Your task to perform on an android device: change the clock display to digital Image 0: 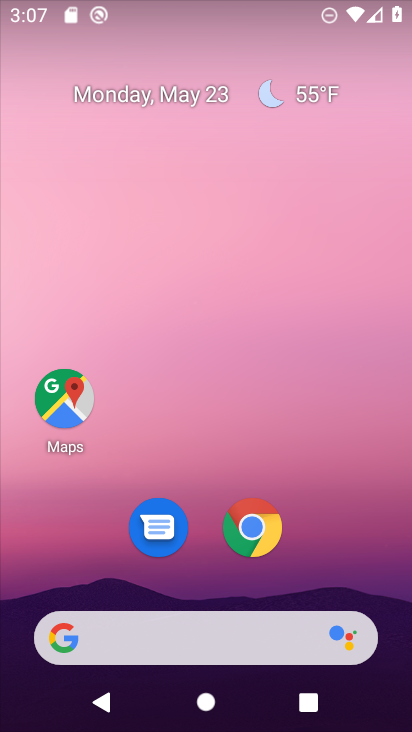
Step 0: drag from (213, 584) to (238, 106)
Your task to perform on an android device: change the clock display to digital Image 1: 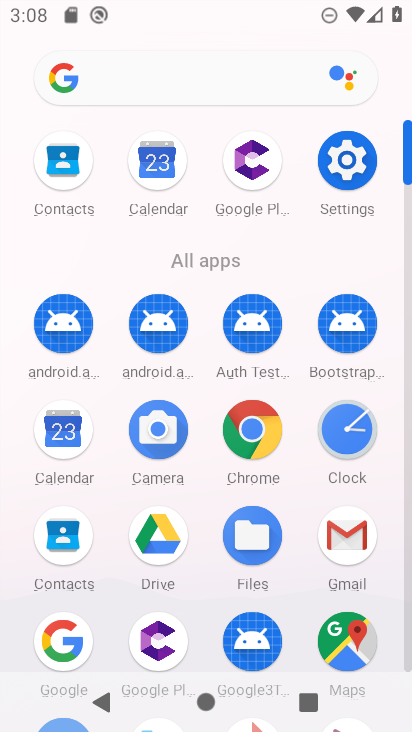
Step 1: drag from (199, 596) to (244, 169)
Your task to perform on an android device: change the clock display to digital Image 2: 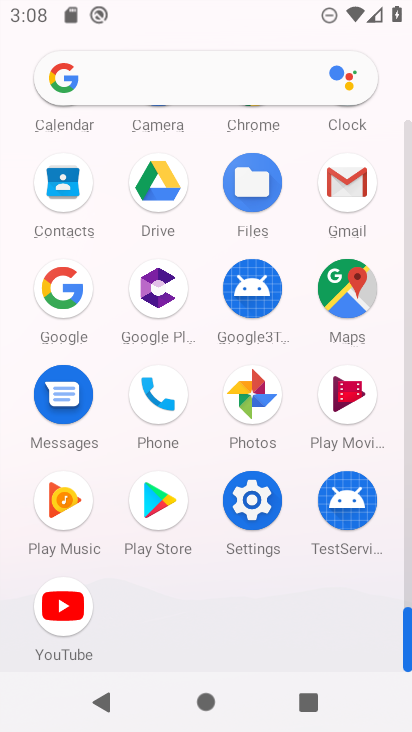
Step 2: drag from (205, 216) to (228, 564)
Your task to perform on an android device: change the clock display to digital Image 3: 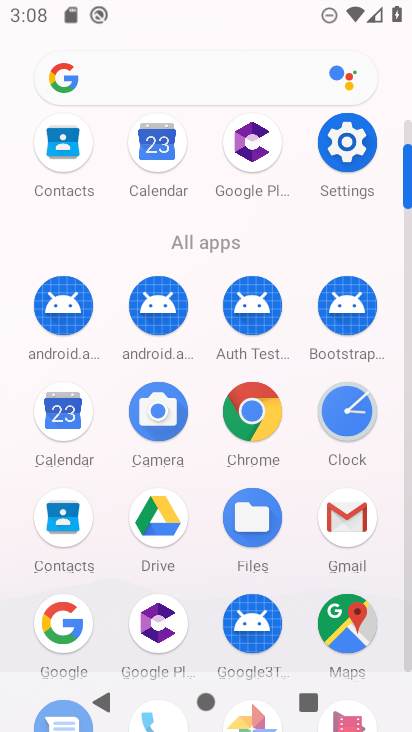
Step 3: click (351, 412)
Your task to perform on an android device: change the clock display to digital Image 4: 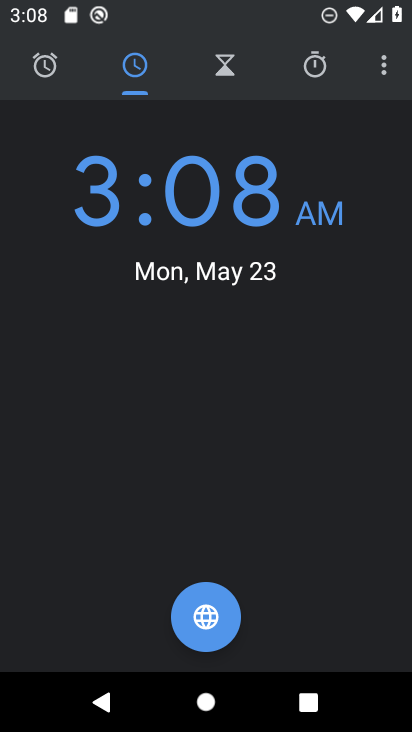
Step 4: click (388, 64)
Your task to perform on an android device: change the clock display to digital Image 5: 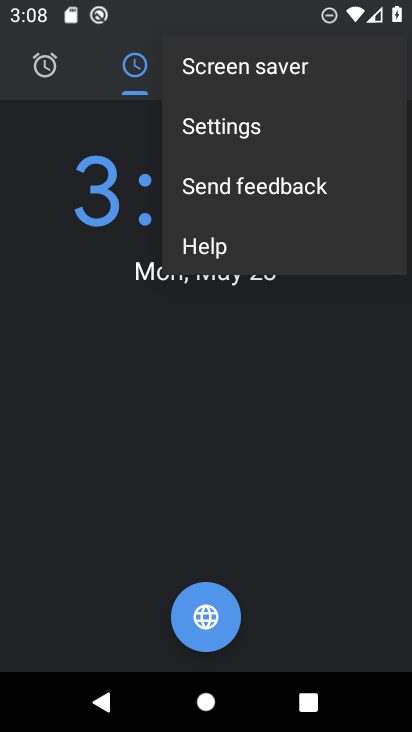
Step 5: click (271, 130)
Your task to perform on an android device: change the clock display to digital Image 6: 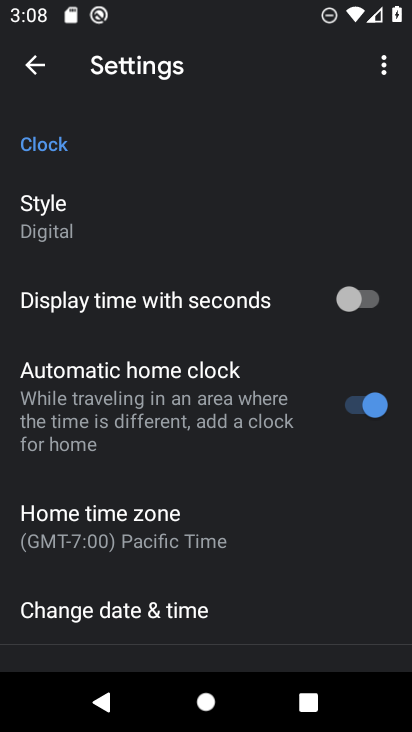
Step 6: click (99, 192)
Your task to perform on an android device: change the clock display to digital Image 7: 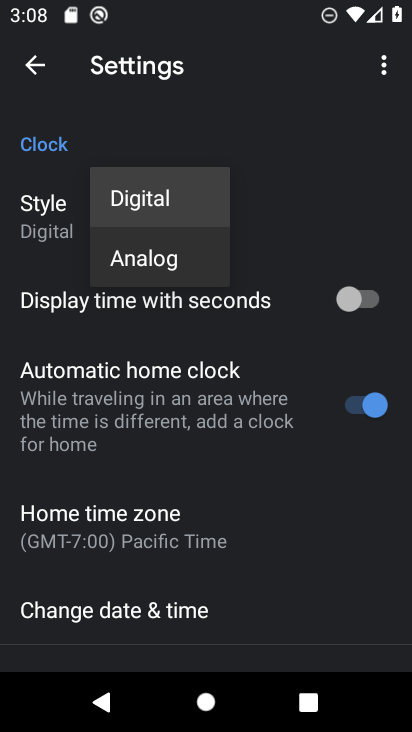
Step 7: click (132, 194)
Your task to perform on an android device: change the clock display to digital Image 8: 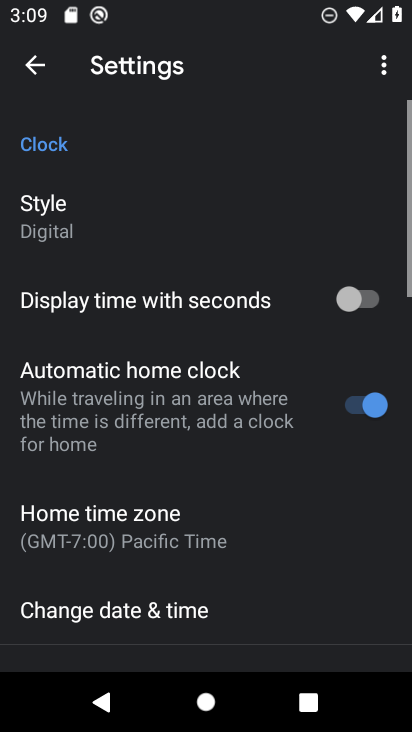
Step 8: task complete